Your task to perform on an android device: change the upload size in google photos Image 0: 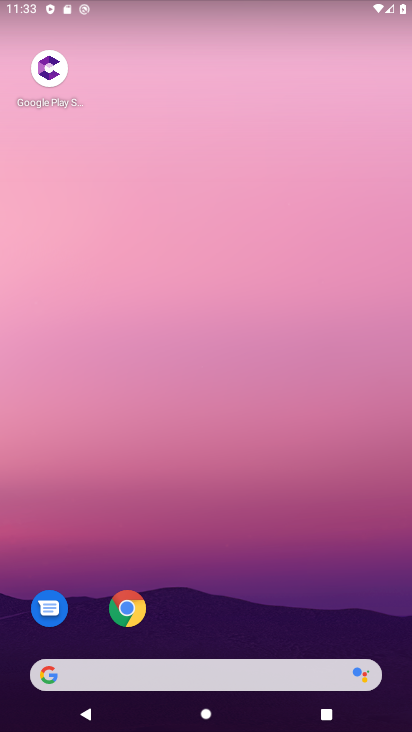
Step 0: drag from (208, 612) to (327, 23)
Your task to perform on an android device: change the upload size in google photos Image 1: 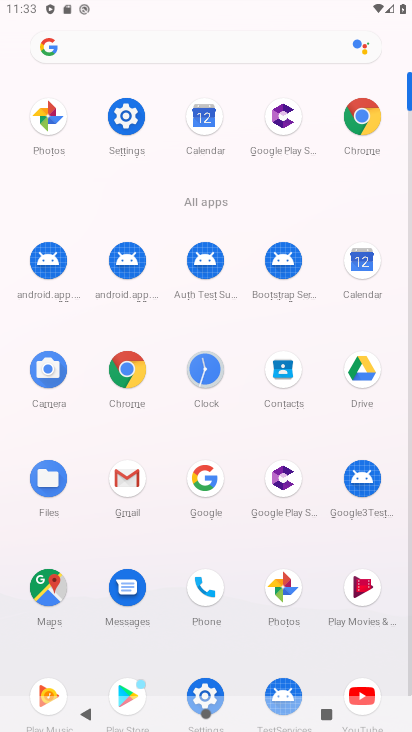
Step 1: click (277, 612)
Your task to perform on an android device: change the upload size in google photos Image 2: 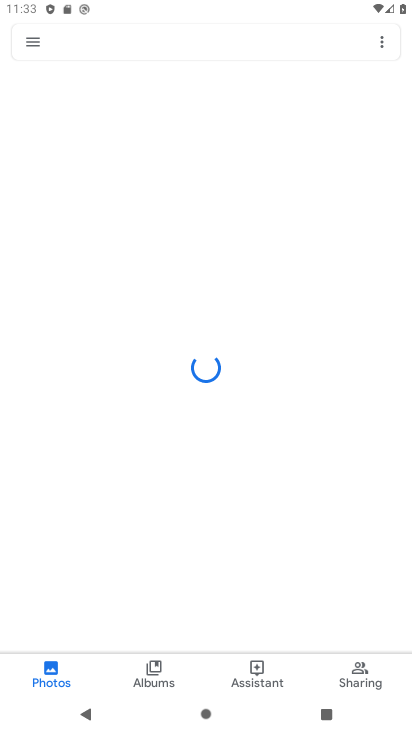
Step 2: click (30, 36)
Your task to perform on an android device: change the upload size in google photos Image 3: 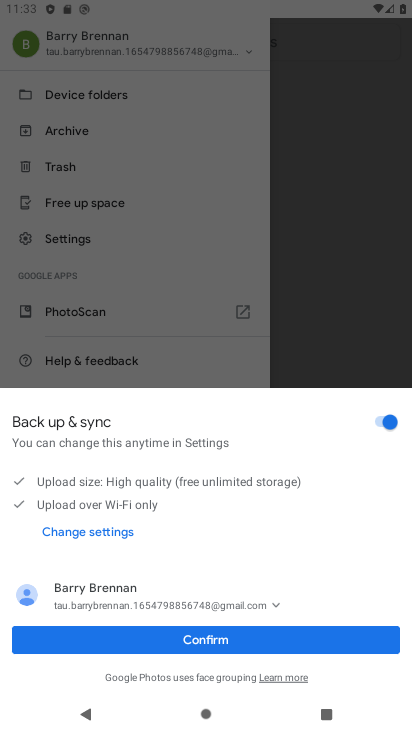
Step 3: click (181, 631)
Your task to perform on an android device: change the upload size in google photos Image 4: 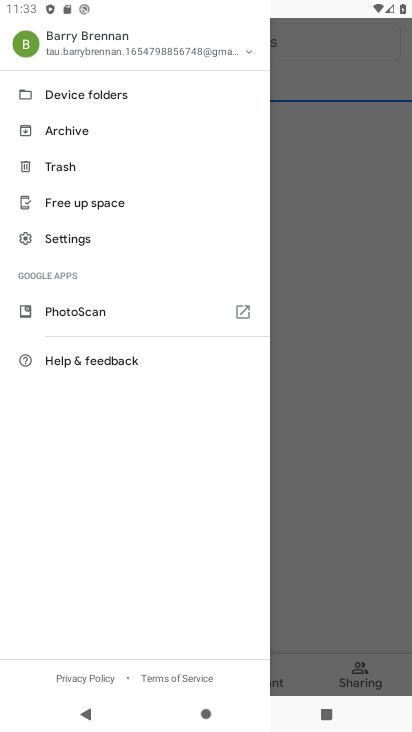
Step 4: click (71, 237)
Your task to perform on an android device: change the upload size in google photos Image 5: 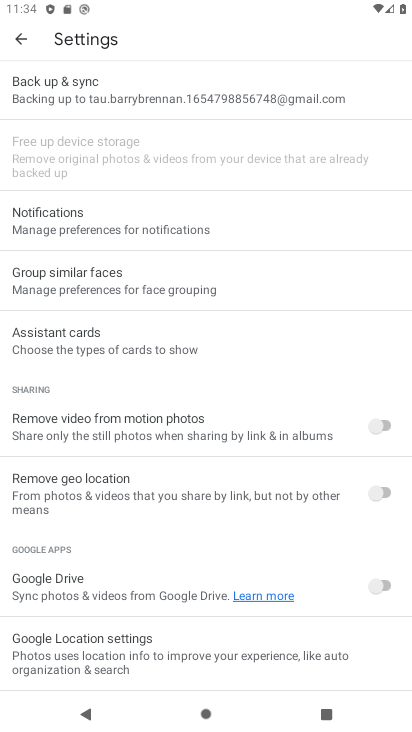
Step 5: click (66, 86)
Your task to perform on an android device: change the upload size in google photos Image 6: 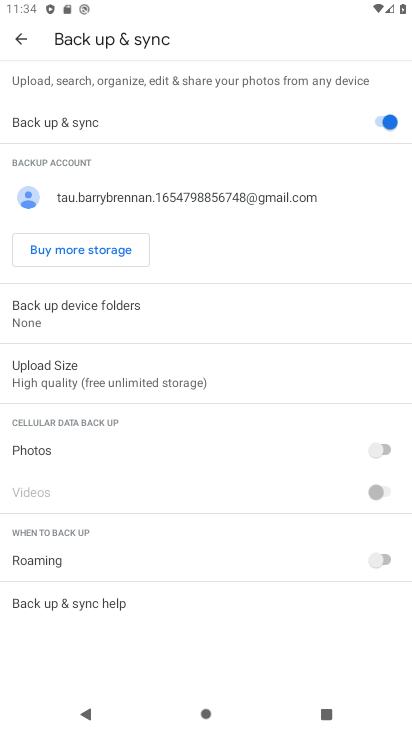
Step 6: click (107, 378)
Your task to perform on an android device: change the upload size in google photos Image 7: 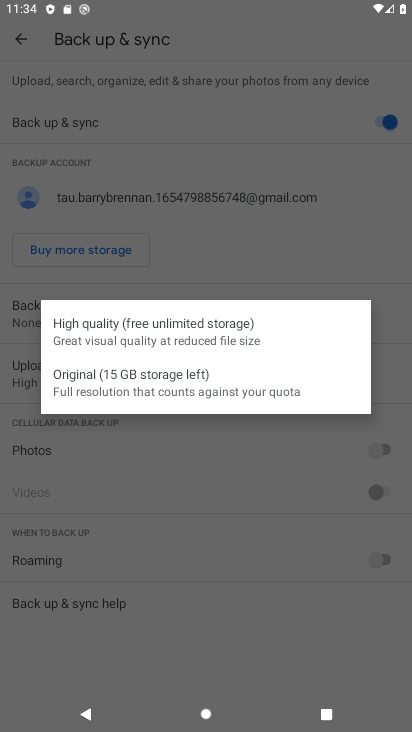
Step 7: click (128, 389)
Your task to perform on an android device: change the upload size in google photos Image 8: 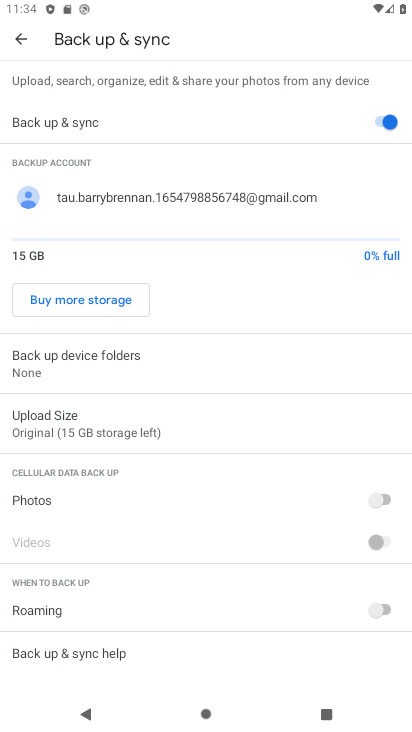
Step 8: task complete